Your task to perform on an android device: Go to internet settings Image 0: 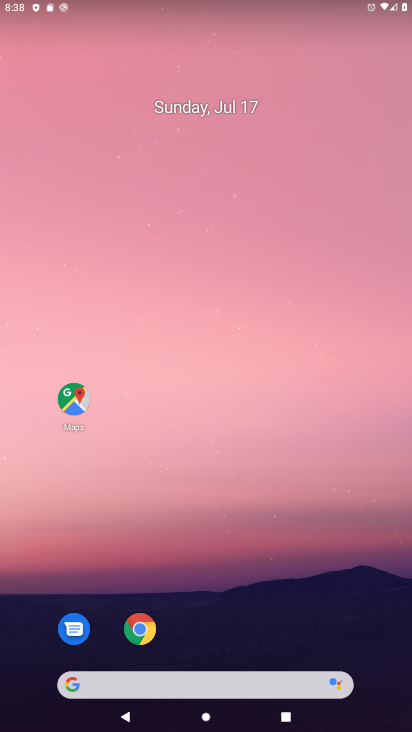
Step 0: drag from (271, 603) to (291, 146)
Your task to perform on an android device: Go to internet settings Image 1: 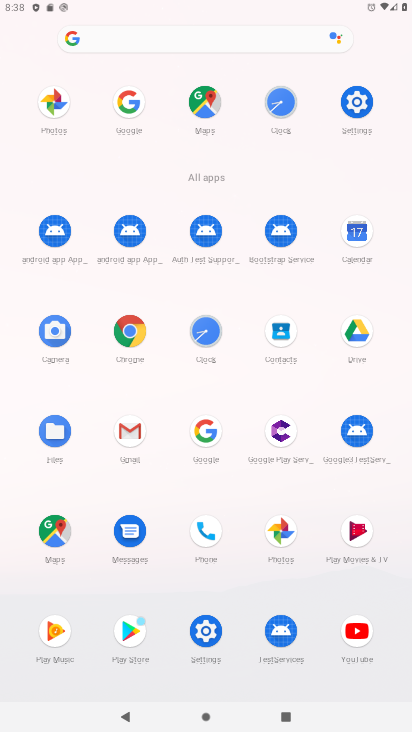
Step 1: click (358, 90)
Your task to perform on an android device: Go to internet settings Image 2: 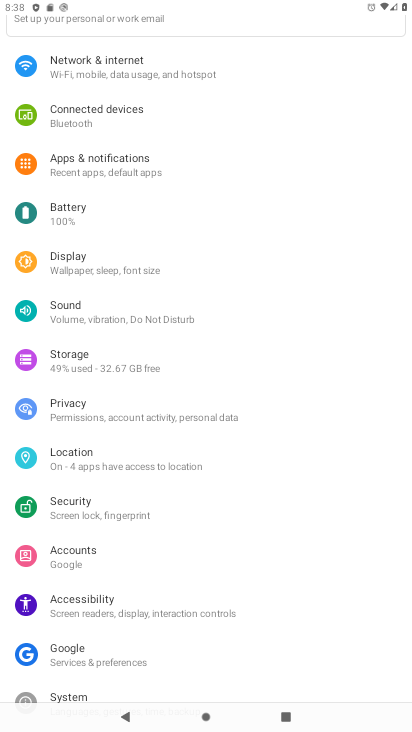
Step 2: click (213, 63)
Your task to perform on an android device: Go to internet settings Image 3: 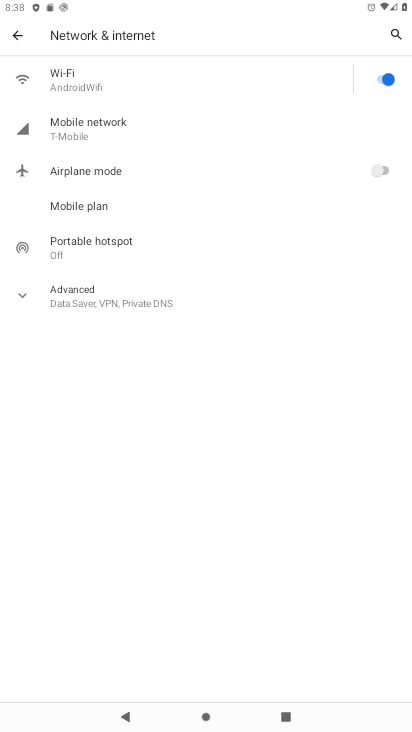
Step 3: click (114, 125)
Your task to perform on an android device: Go to internet settings Image 4: 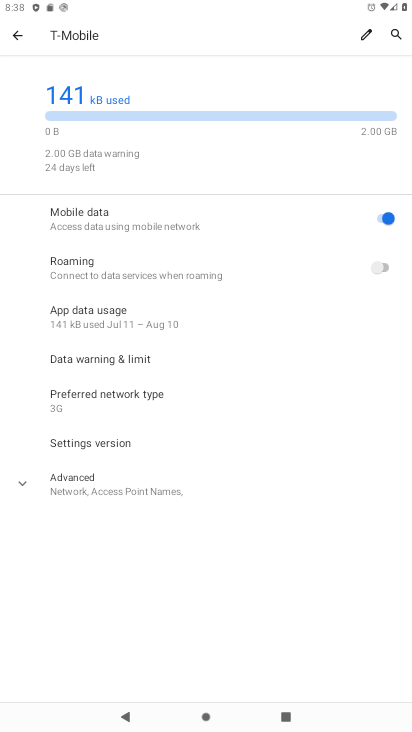
Step 4: task complete